Your task to perform on an android device: change notification settings in the gmail app Image 0: 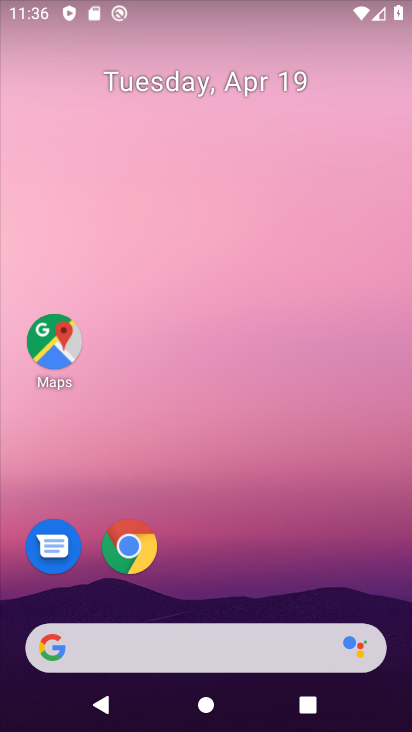
Step 0: drag from (270, 547) to (253, 55)
Your task to perform on an android device: change notification settings in the gmail app Image 1: 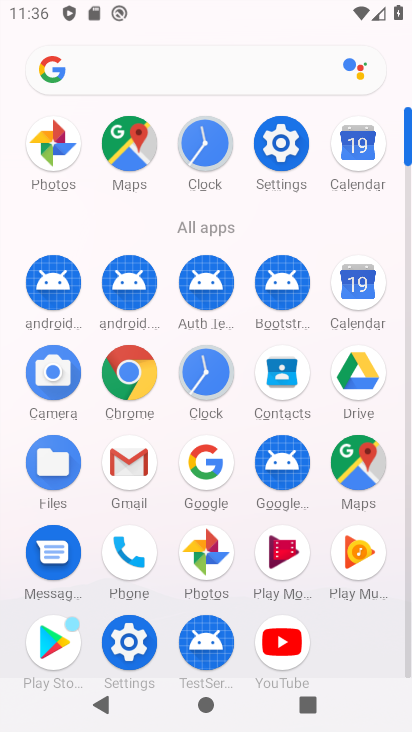
Step 1: click (283, 144)
Your task to perform on an android device: change notification settings in the gmail app Image 2: 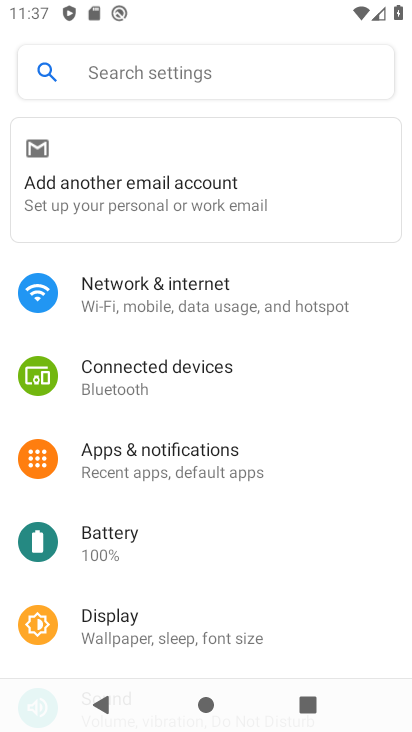
Step 2: press home button
Your task to perform on an android device: change notification settings in the gmail app Image 3: 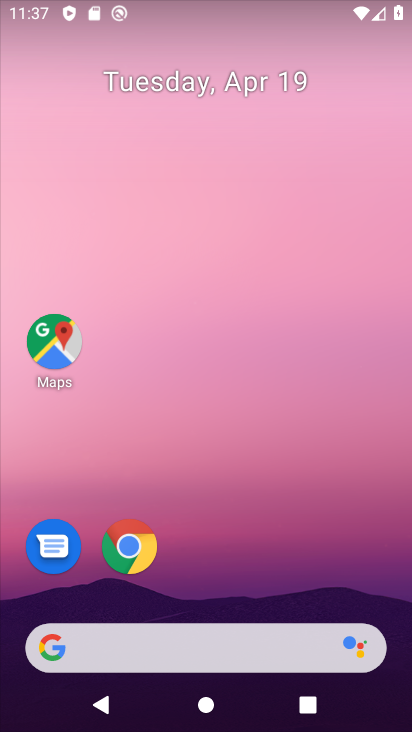
Step 3: drag from (312, 516) to (322, 96)
Your task to perform on an android device: change notification settings in the gmail app Image 4: 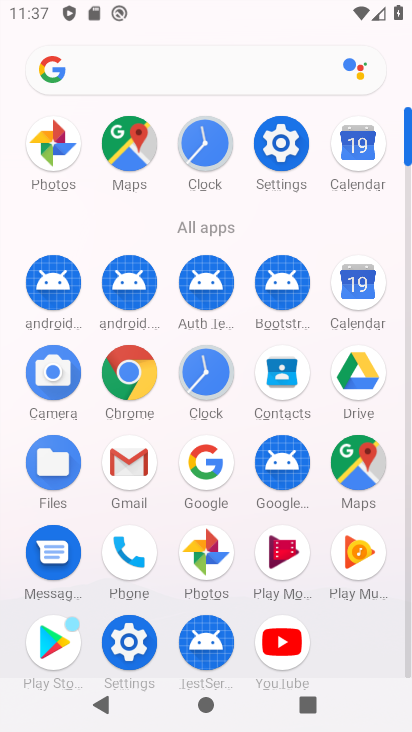
Step 4: click (135, 465)
Your task to perform on an android device: change notification settings in the gmail app Image 5: 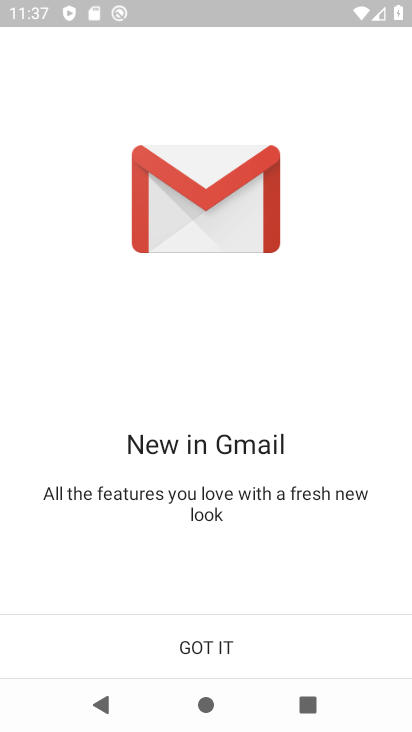
Step 5: click (234, 644)
Your task to perform on an android device: change notification settings in the gmail app Image 6: 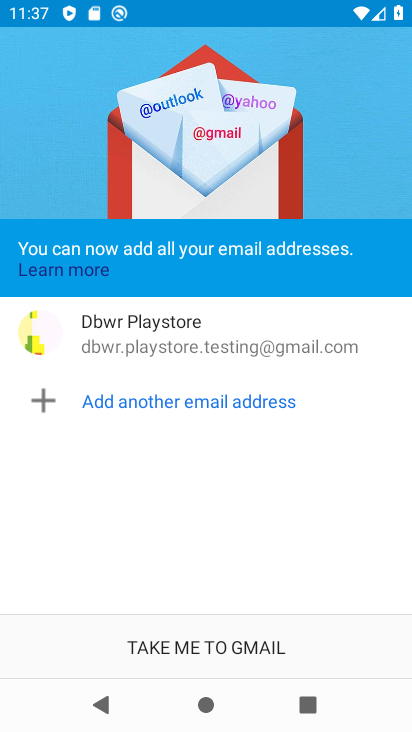
Step 6: click (241, 638)
Your task to perform on an android device: change notification settings in the gmail app Image 7: 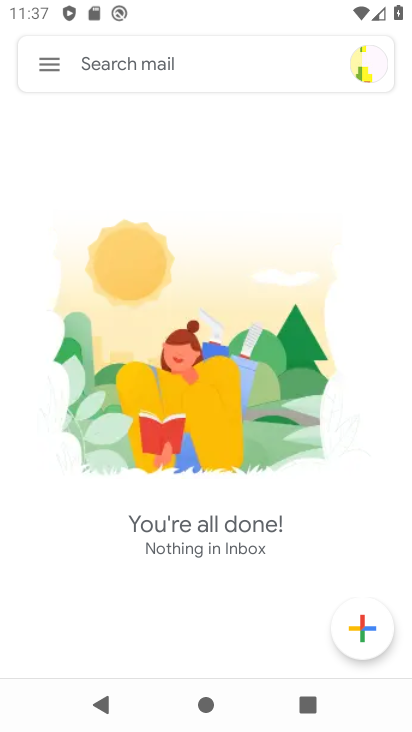
Step 7: click (53, 65)
Your task to perform on an android device: change notification settings in the gmail app Image 8: 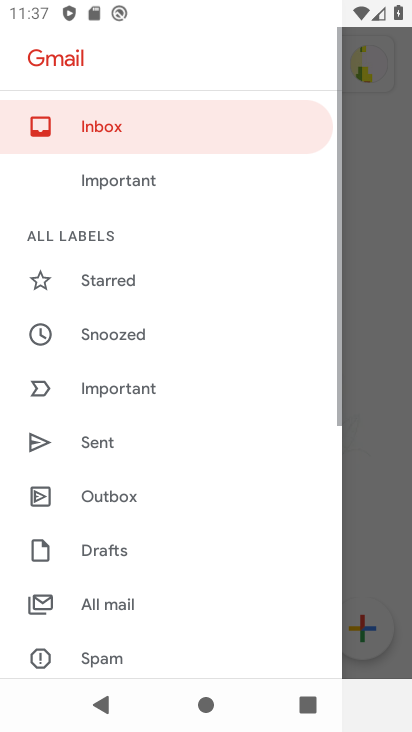
Step 8: drag from (163, 616) to (181, 210)
Your task to perform on an android device: change notification settings in the gmail app Image 9: 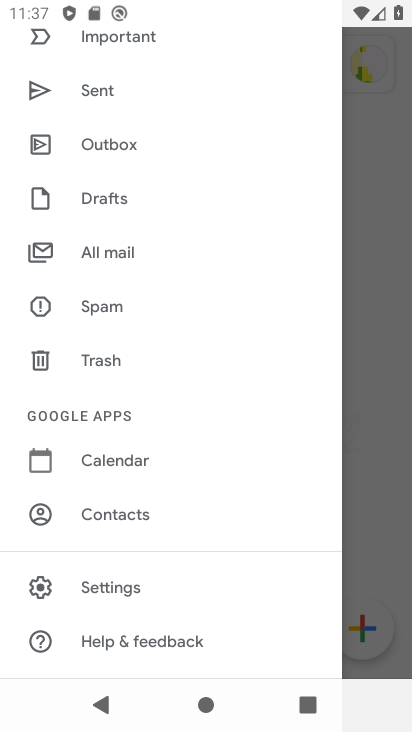
Step 9: click (156, 584)
Your task to perform on an android device: change notification settings in the gmail app Image 10: 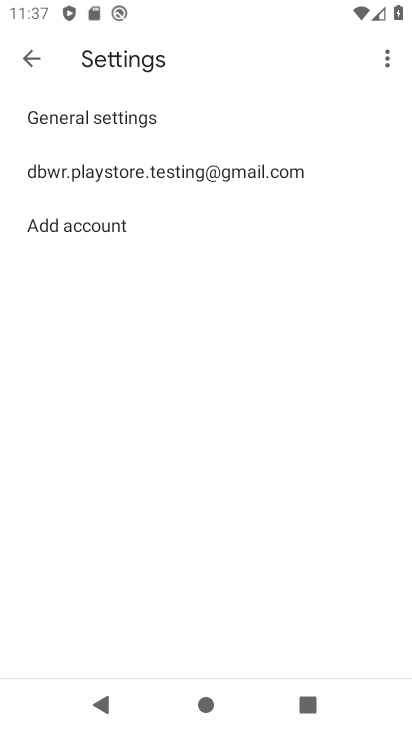
Step 10: click (191, 169)
Your task to perform on an android device: change notification settings in the gmail app Image 11: 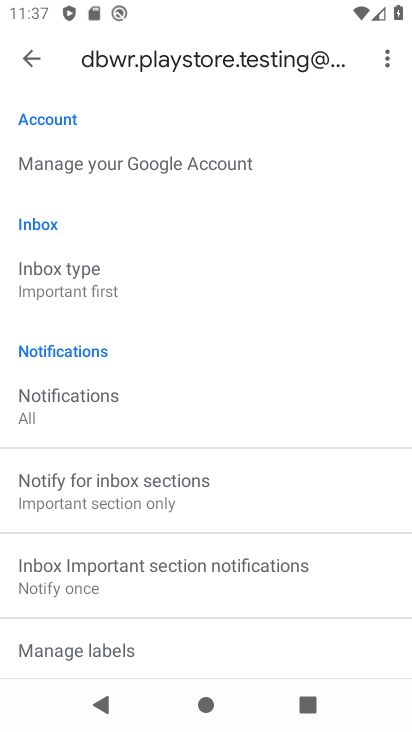
Step 11: click (87, 409)
Your task to perform on an android device: change notification settings in the gmail app Image 12: 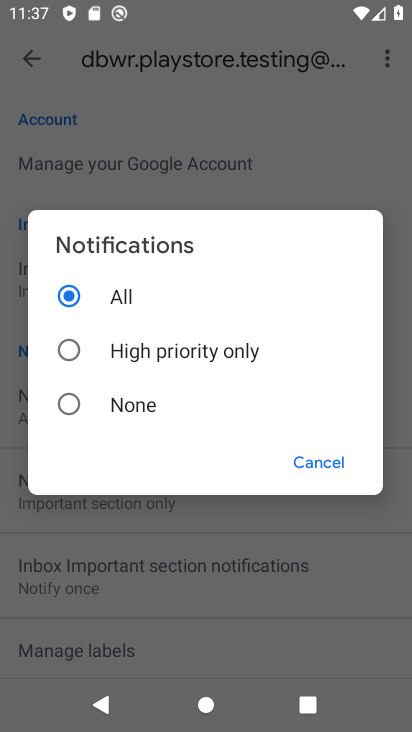
Step 12: click (75, 347)
Your task to perform on an android device: change notification settings in the gmail app Image 13: 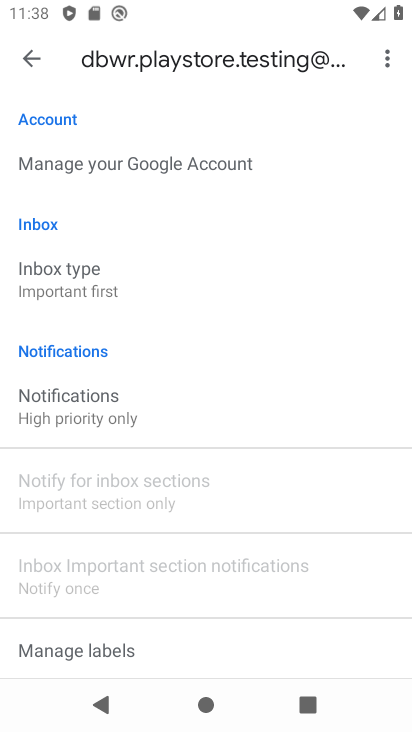
Step 13: task complete